Your task to perform on an android device: turn on sleep mode Image 0: 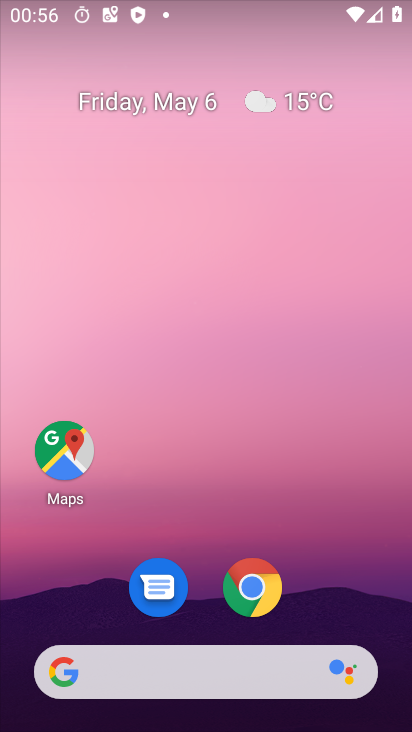
Step 0: drag from (346, 375) to (339, 292)
Your task to perform on an android device: turn on sleep mode Image 1: 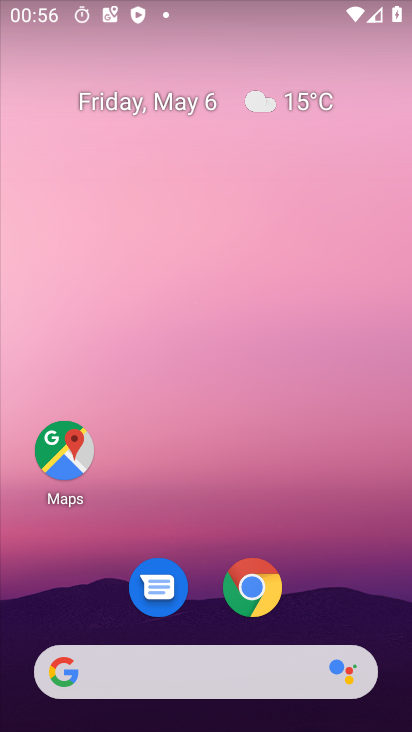
Step 1: drag from (390, 644) to (410, 292)
Your task to perform on an android device: turn on sleep mode Image 2: 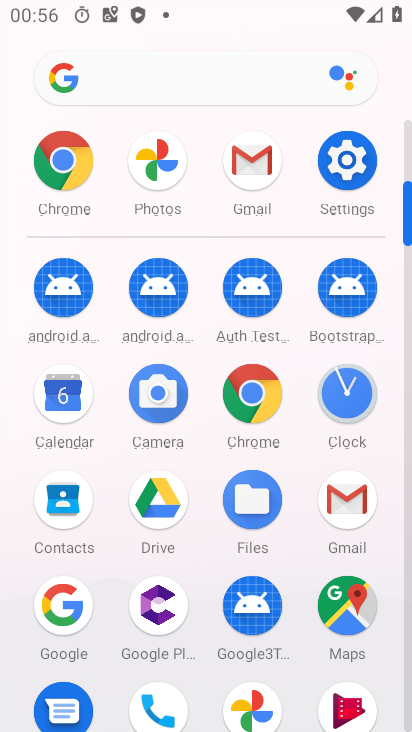
Step 2: click (339, 168)
Your task to perform on an android device: turn on sleep mode Image 3: 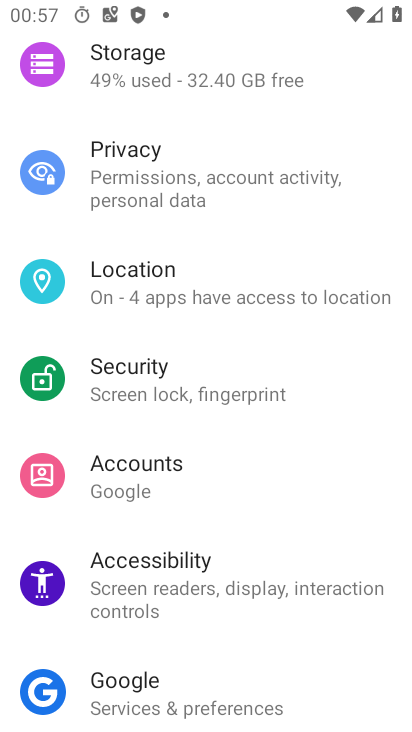
Step 3: drag from (314, 683) to (285, 366)
Your task to perform on an android device: turn on sleep mode Image 4: 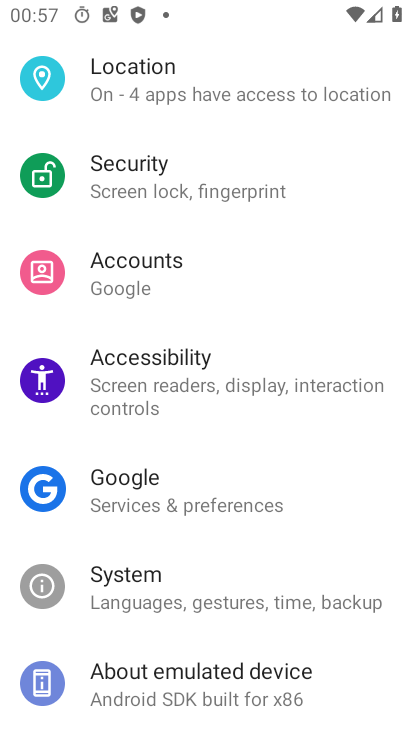
Step 4: drag from (314, 201) to (372, 507)
Your task to perform on an android device: turn on sleep mode Image 5: 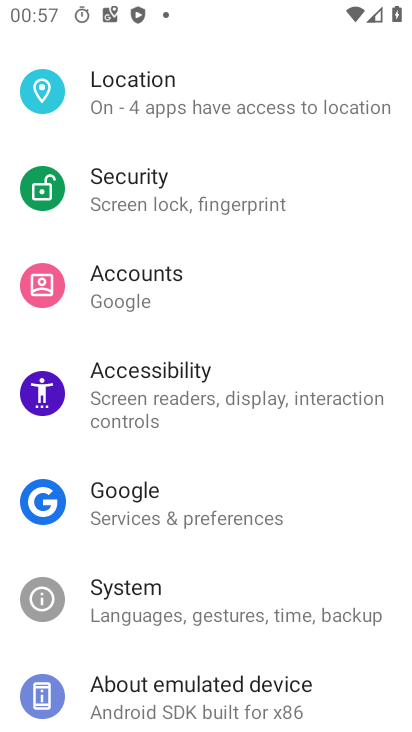
Step 5: drag from (348, 149) to (393, 501)
Your task to perform on an android device: turn on sleep mode Image 6: 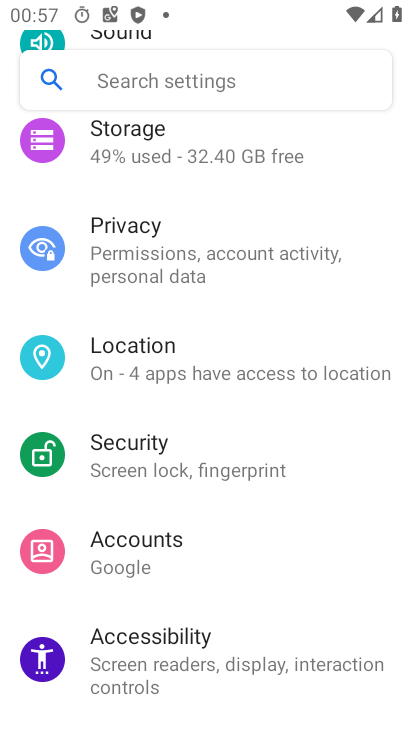
Step 6: drag from (330, 154) to (342, 522)
Your task to perform on an android device: turn on sleep mode Image 7: 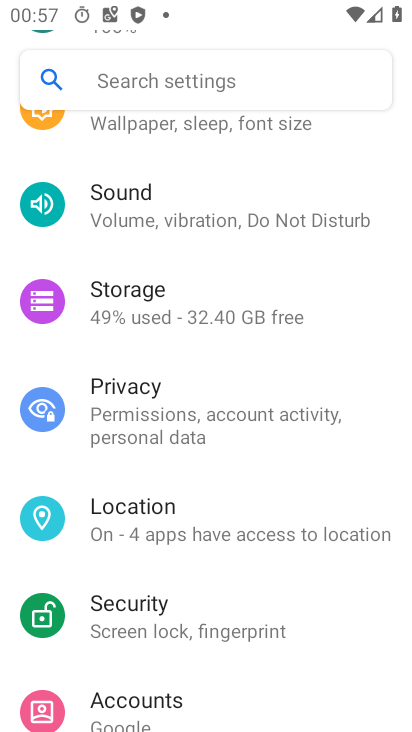
Step 7: drag from (305, 207) to (311, 511)
Your task to perform on an android device: turn on sleep mode Image 8: 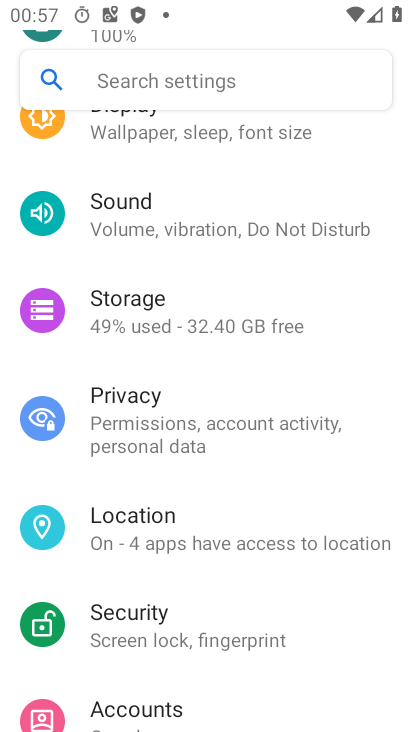
Step 8: drag from (352, 164) to (359, 496)
Your task to perform on an android device: turn on sleep mode Image 9: 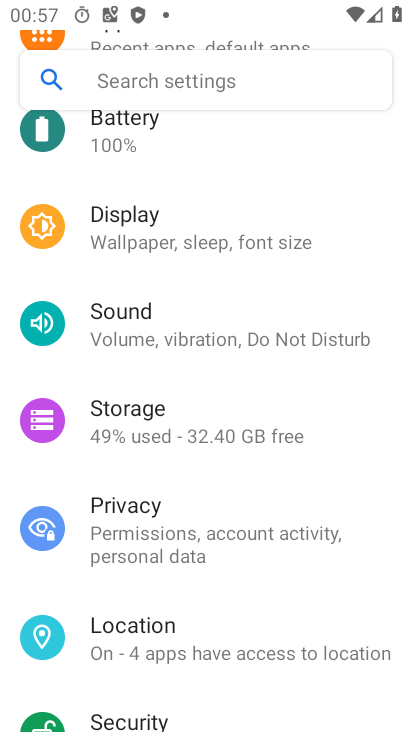
Step 9: drag from (357, 163) to (395, 471)
Your task to perform on an android device: turn on sleep mode Image 10: 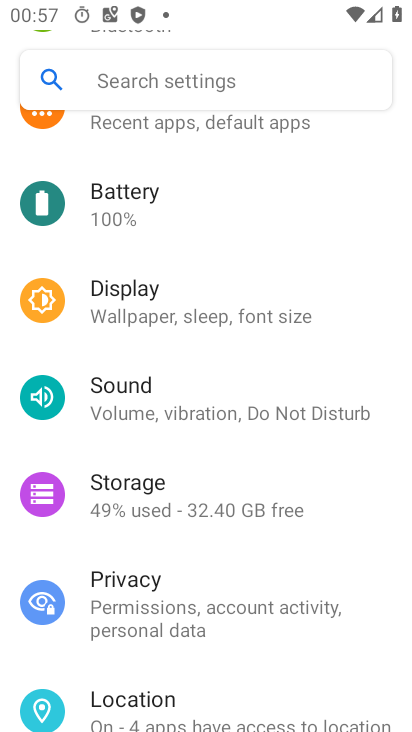
Step 10: click (161, 294)
Your task to perform on an android device: turn on sleep mode Image 11: 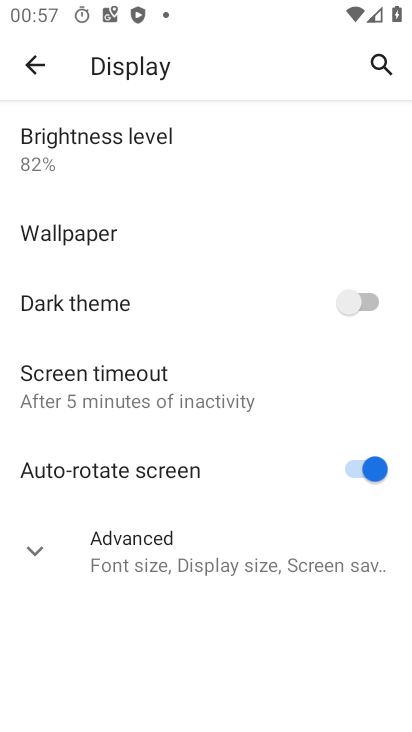
Step 11: click (95, 387)
Your task to perform on an android device: turn on sleep mode Image 12: 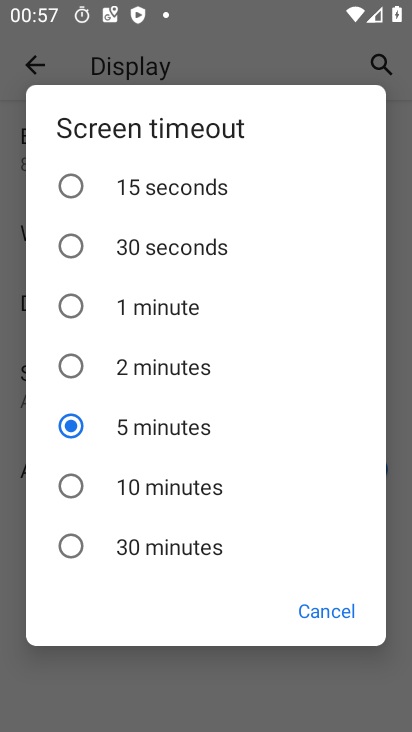
Step 12: task complete